Your task to perform on an android device: allow cookies in the chrome app Image 0: 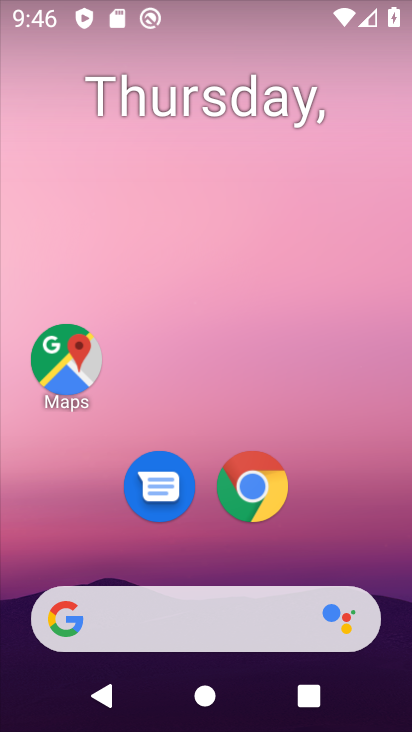
Step 0: click (250, 481)
Your task to perform on an android device: allow cookies in the chrome app Image 1: 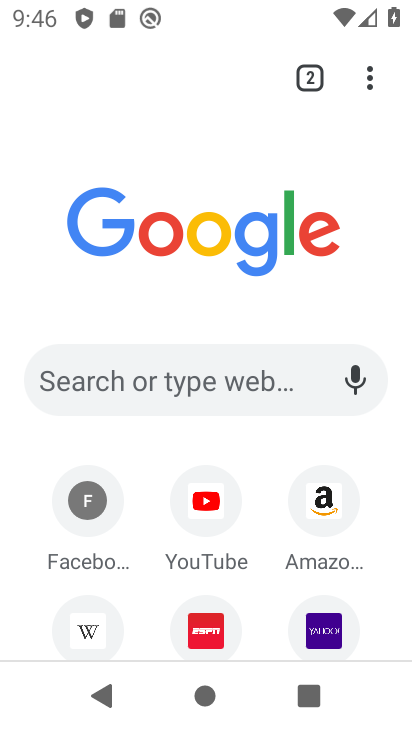
Step 1: drag from (372, 83) to (137, 408)
Your task to perform on an android device: allow cookies in the chrome app Image 2: 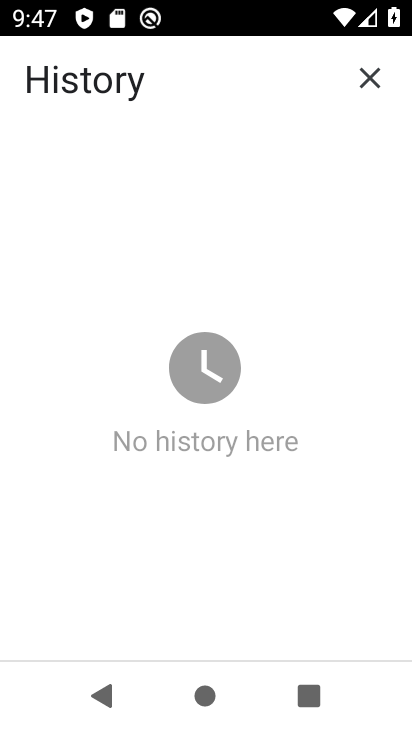
Step 2: click (365, 72)
Your task to perform on an android device: allow cookies in the chrome app Image 3: 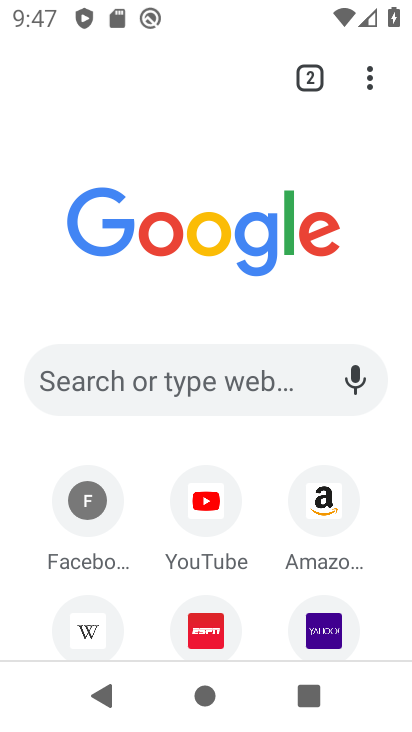
Step 3: drag from (366, 80) to (140, 544)
Your task to perform on an android device: allow cookies in the chrome app Image 4: 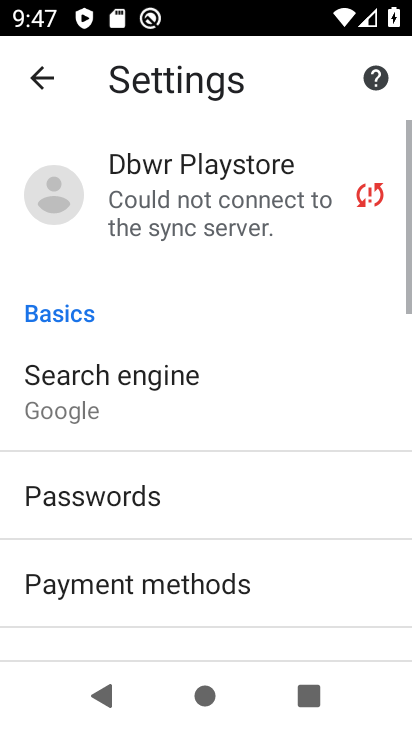
Step 4: drag from (140, 545) to (231, 123)
Your task to perform on an android device: allow cookies in the chrome app Image 5: 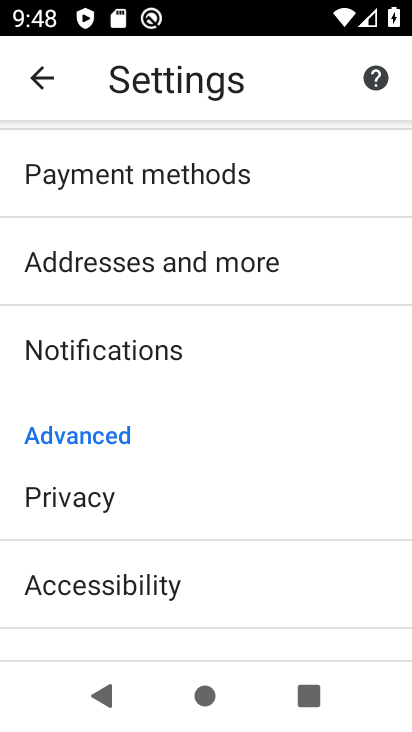
Step 5: drag from (140, 559) to (217, 200)
Your task to perform on an android device: allow cookies in the chrome app Image 6: 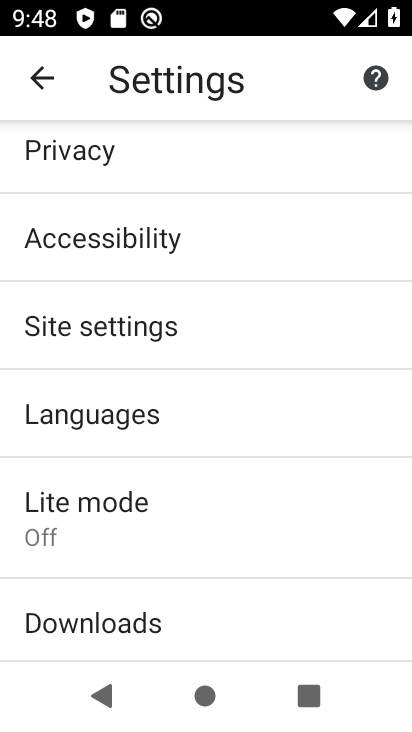
Step 6: click (103, 315)
Your task to perform on an android device: allow cookies in the chrome app Image 7: 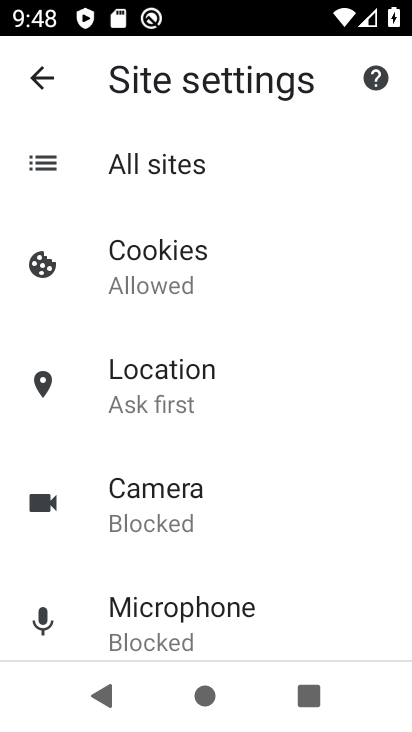
Step 7: click (166, 268)
Your task to perform on an android device: allow cookies in the chrome app Image 8: 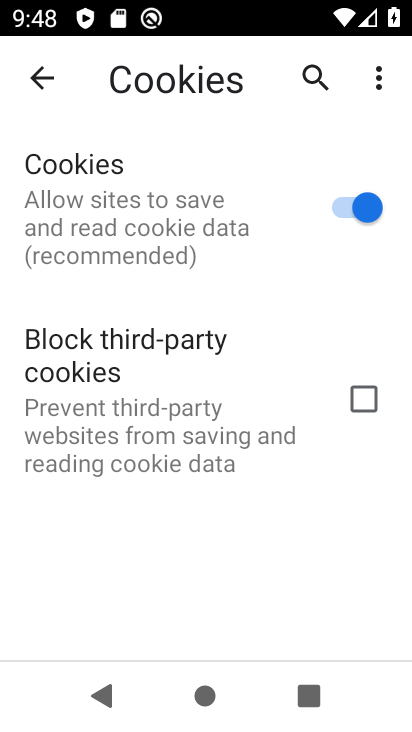
Step 8: task complete